Your task to perform on an android device: Open notification settings Image 0: 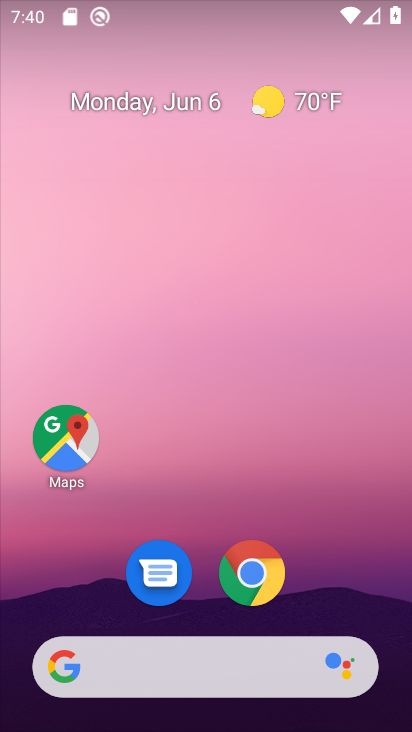
Step 0: drag from (196, 600) to (226, 13)
Your task to perform on an android device: Open notification settings Image 1: 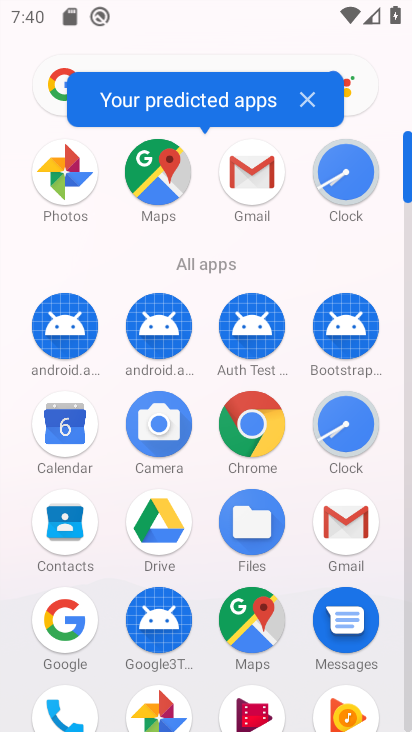
Step 1: drag from (303, 462) to (292, 119)
Your task to perform on an android device: Open notification settings Image 2: 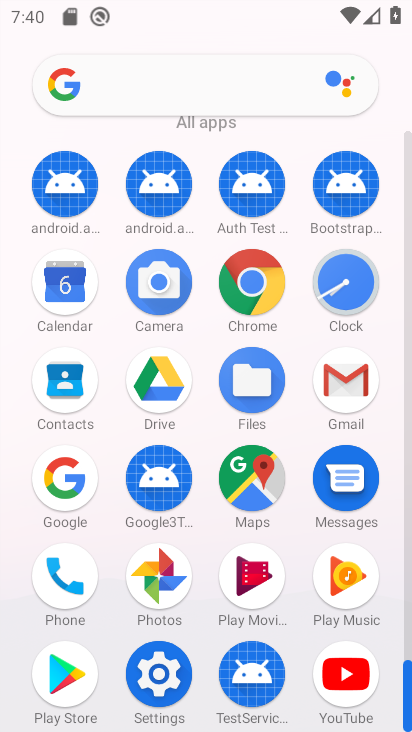
Step 2: click (171, 667)
Your task to perform on an android device: Open notification settings Image 3: 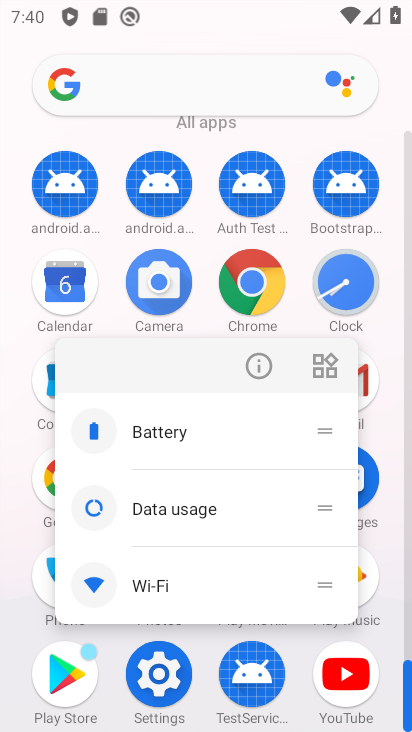
Step 3: click (155, 676)
Your task to perform on an android device: Open notification settings Image 4: 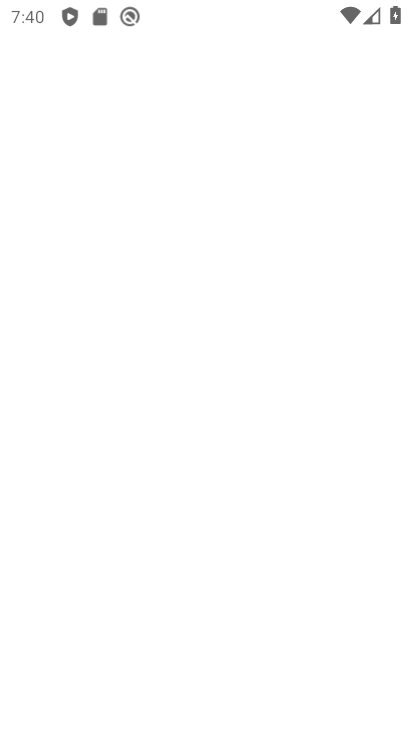
Step 4: click (157, 680)
Your task to perform on an android device: Open notification settings Image 5: 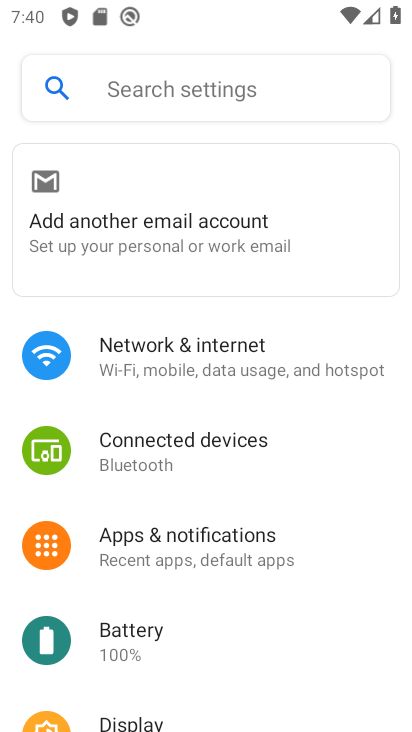
Step 5: click (256, 530)
Your task to perform on an android device: Open notification settings Image 6: 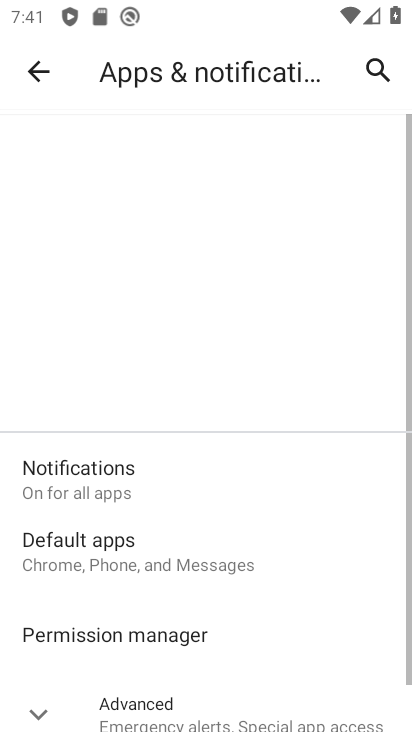
Step 6: click (185, 474)
Your task to perform on an android device: Open notification settings Image 7: 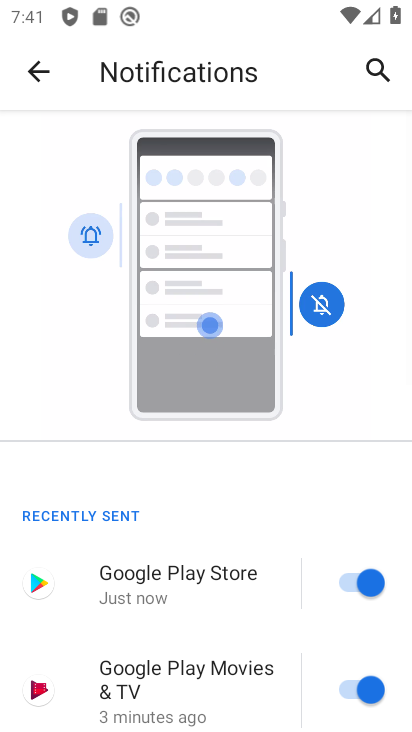
Step 7: task complete